Your task to perform on an android device: open device folders in google photos Image 0: 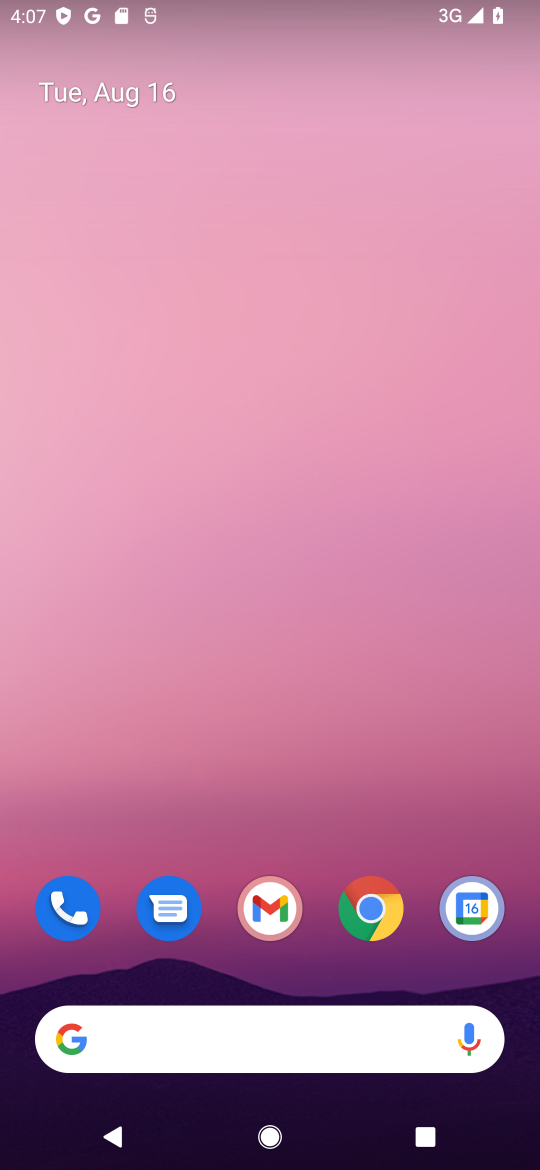
Step 0: drag from (276, 977) to (408, 0)
Your task to perform on an android device: open device folders in google photos Image 1: 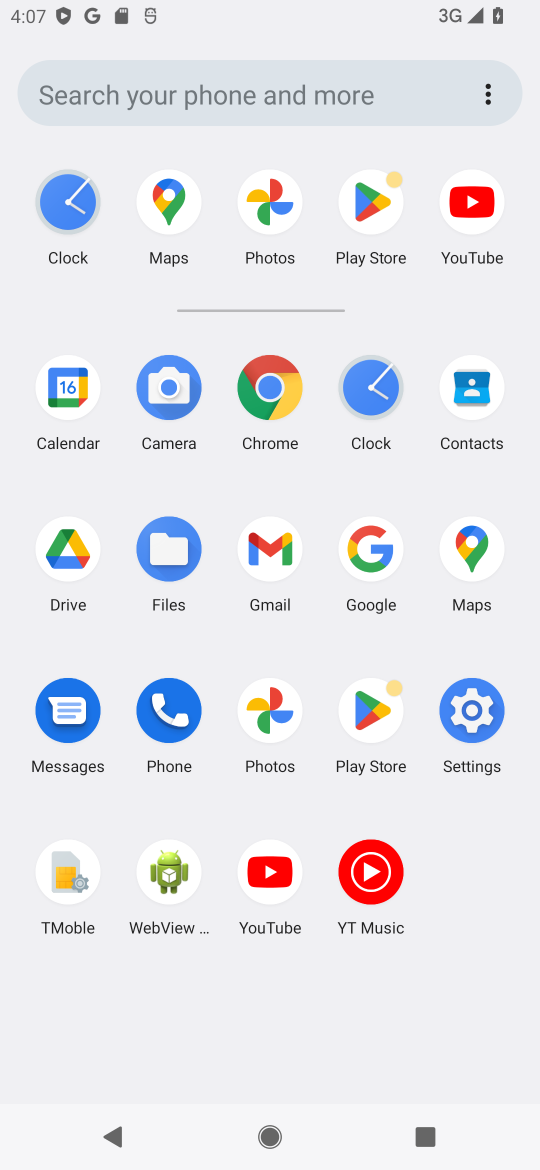
Step 1: click (271, 704)
Your task to perform on an android device: open device folders in google photos Image 2: 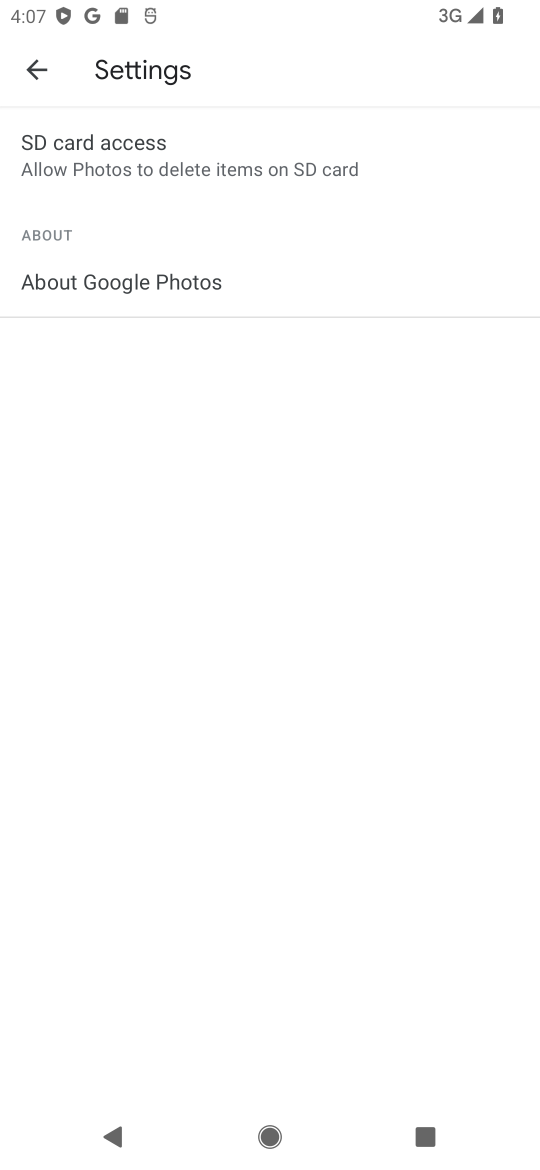
Step 2: click (41, 58)
Your task to perform on an android device: open device folders in google photos Image 3: 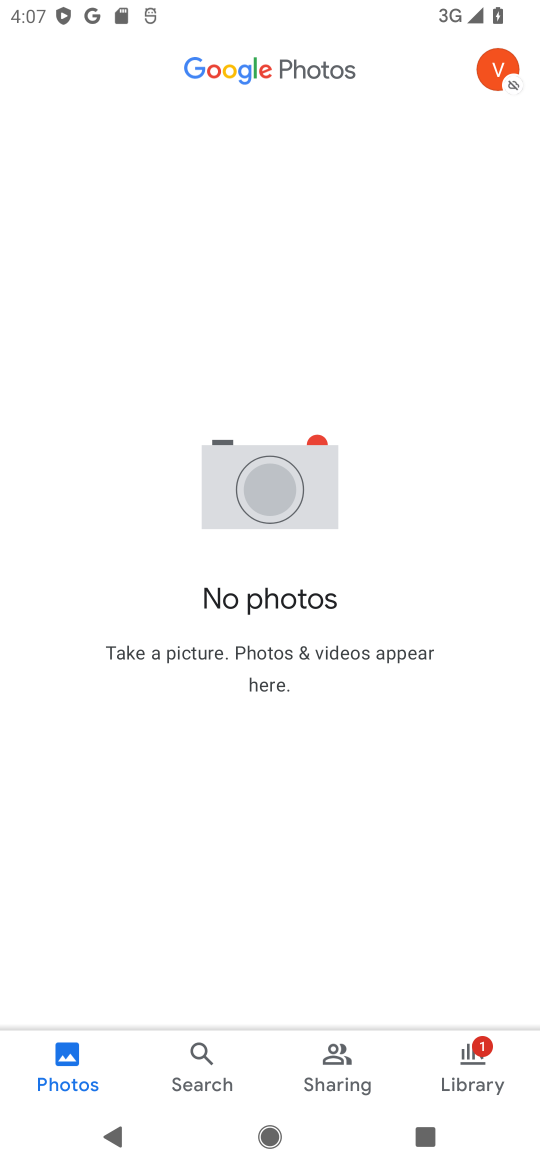
Step 3: task complete